Your task to perform on an android device: open app "Paramount+ | Peak Streaming" Image 0: 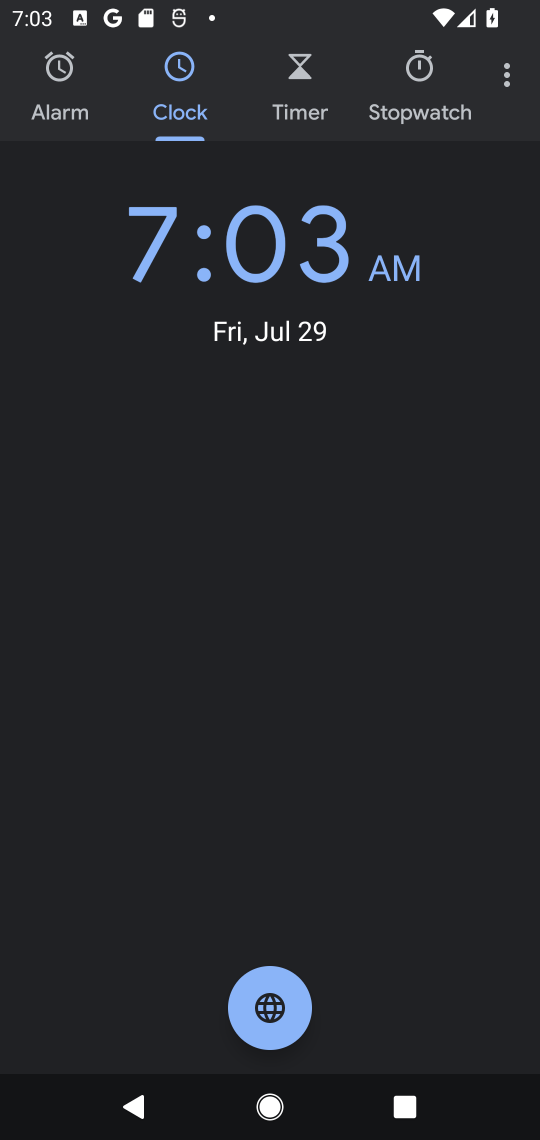
Step 0: press home button
Your task to perform on an android device: open app "Paramount+ | Peak Streaming" Image 1: 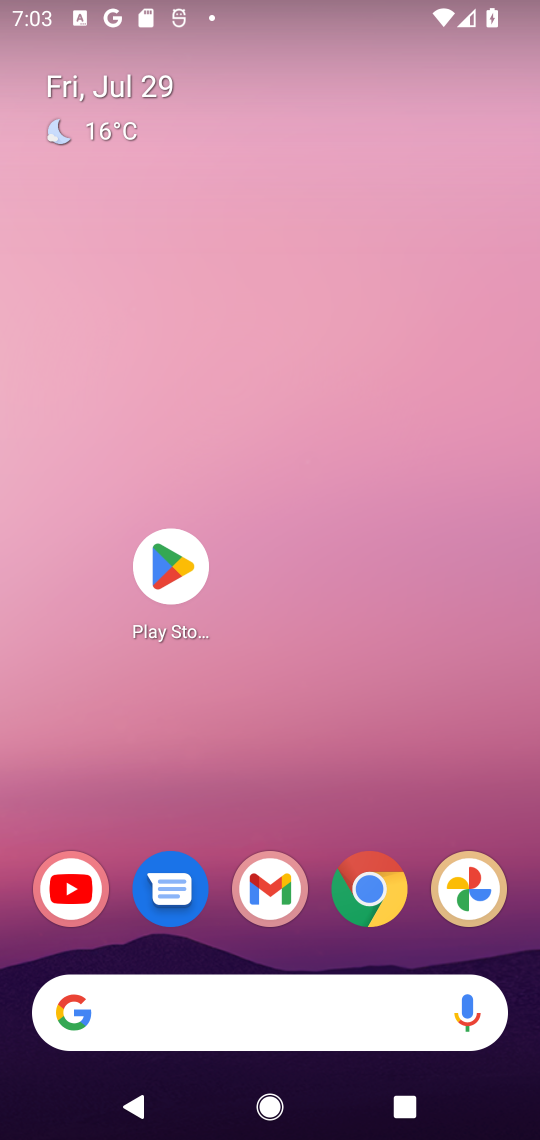
Step 1: click (178, 557)
Your task to perform on an android device: open app "Paramount+ | Peak Streaming" Image 2: 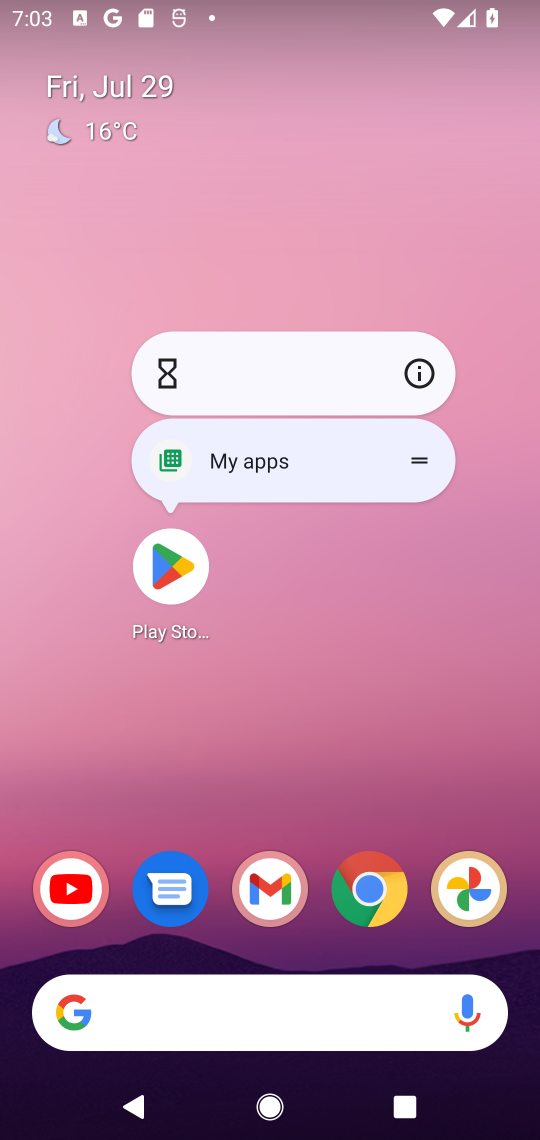
Step 2: click (166, 562)
Your task to perform on an android device: open app "Paramount+ | Peak Streaming" Image 3: 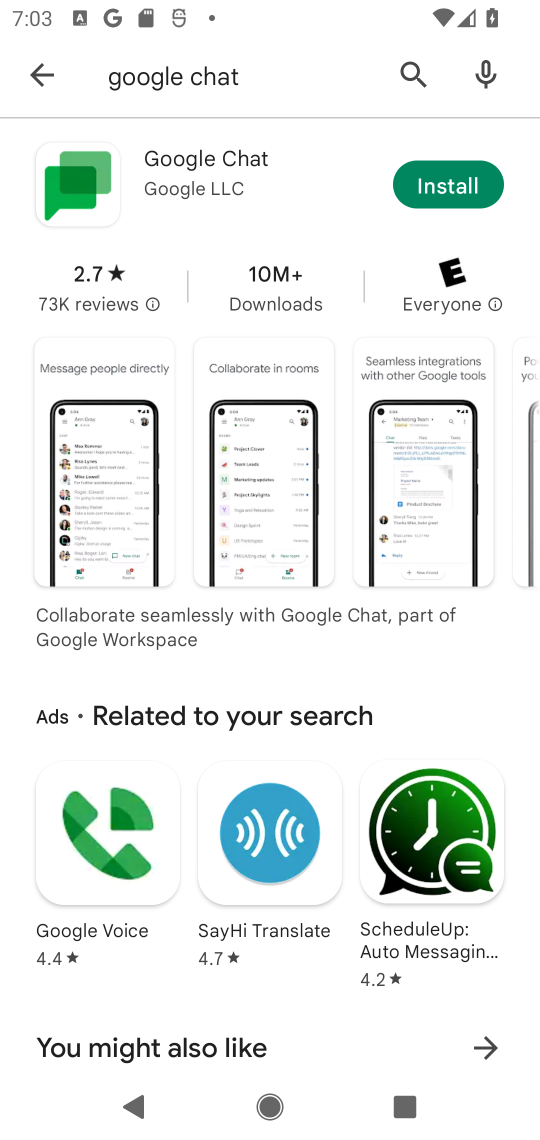
Step 3: click (414, 56)
Your task to perform on an android device: open app "Paramount+ | Peak Streaming" Image 4: 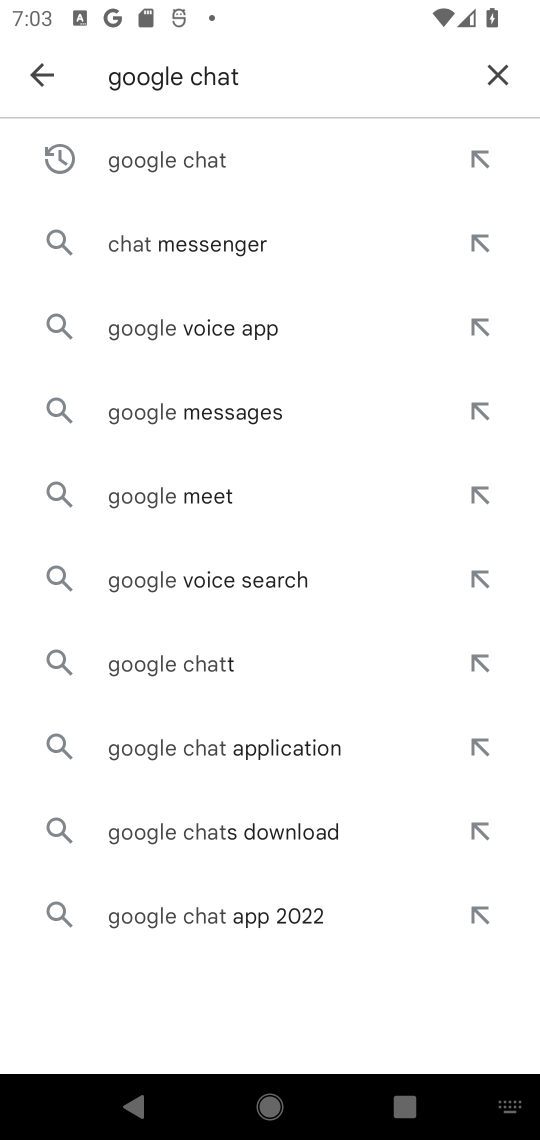
Step 4: click (494, 75)
Your task to perform on an android device: open app "Paramount+ | Peak Streaming" Image 5: 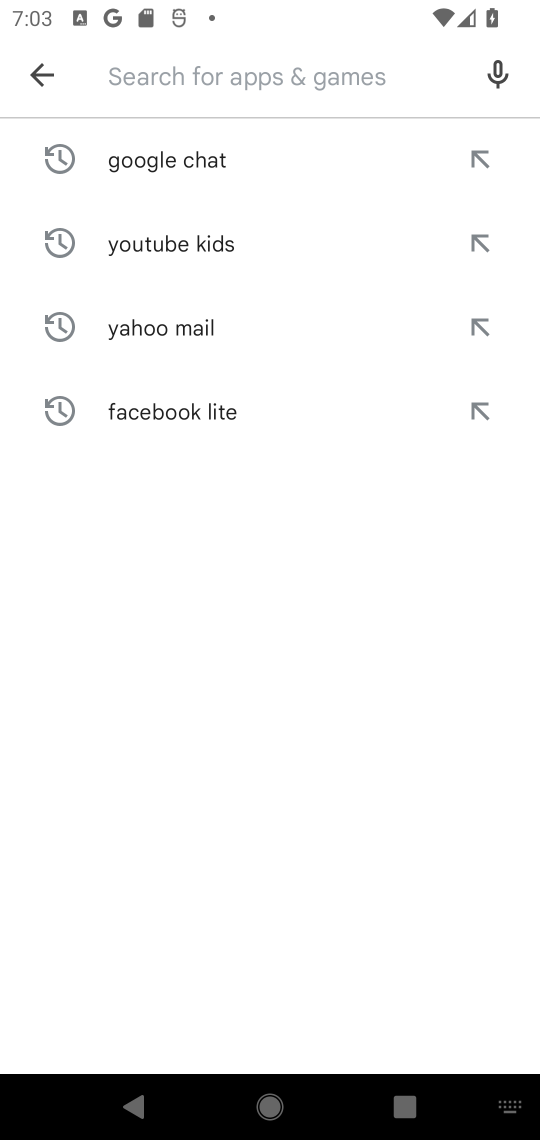
Step 5: type "Paramount+ | Peak Streaming"
Your task to perform on an android device: open app "Paramount+ | Peak Streaming" Image 6: 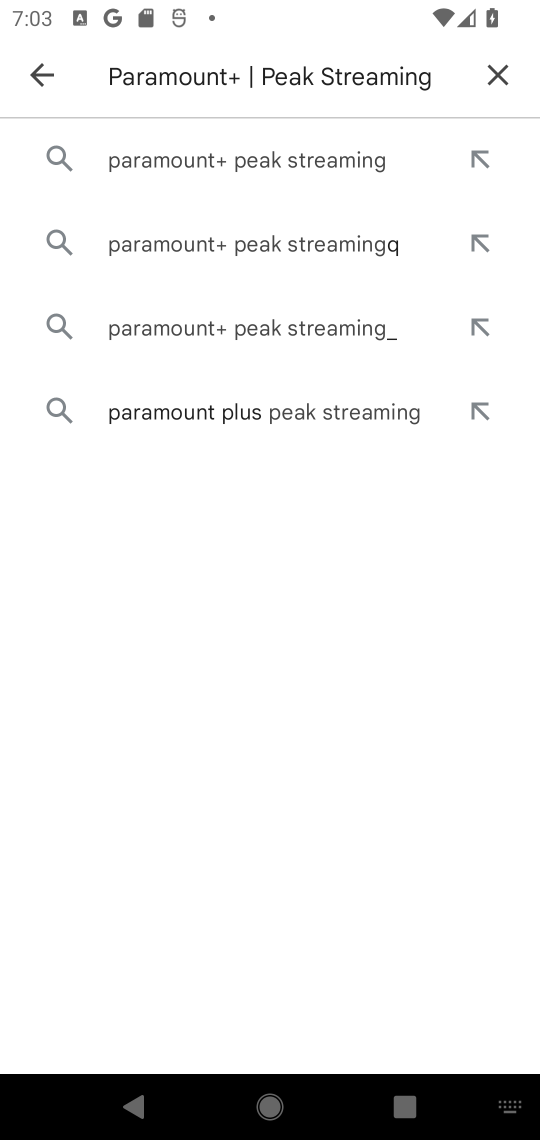
Step 6: click (308, 159)
Your task to perform on an android device: open app "Paramount+ | Peak Streaming" Image 7: 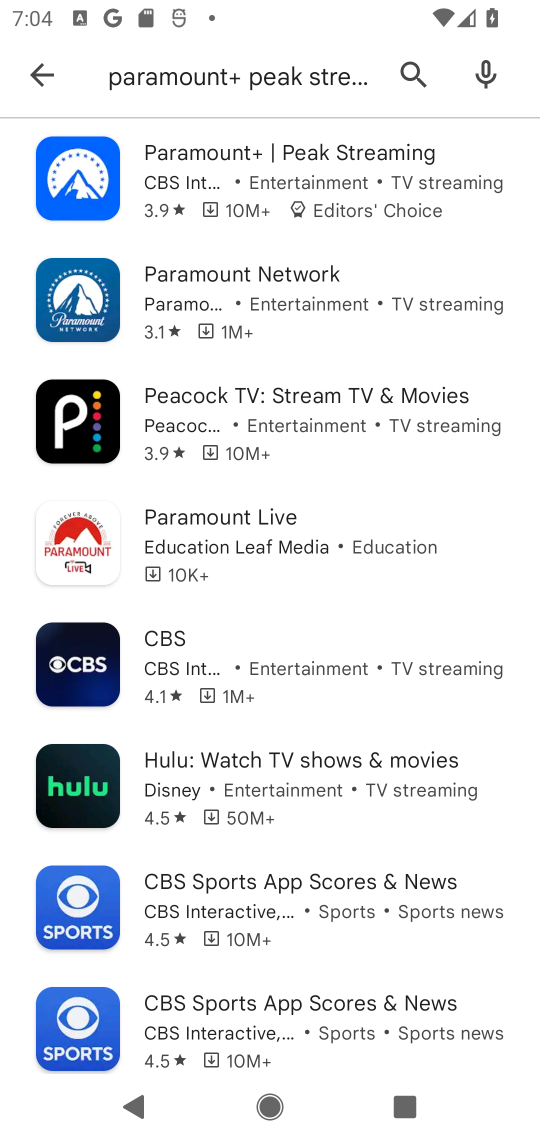
Step 7: click (324, 170)
Your task to perform on an android device: open app "Paramount+ | Peak Streaming" Image 8: 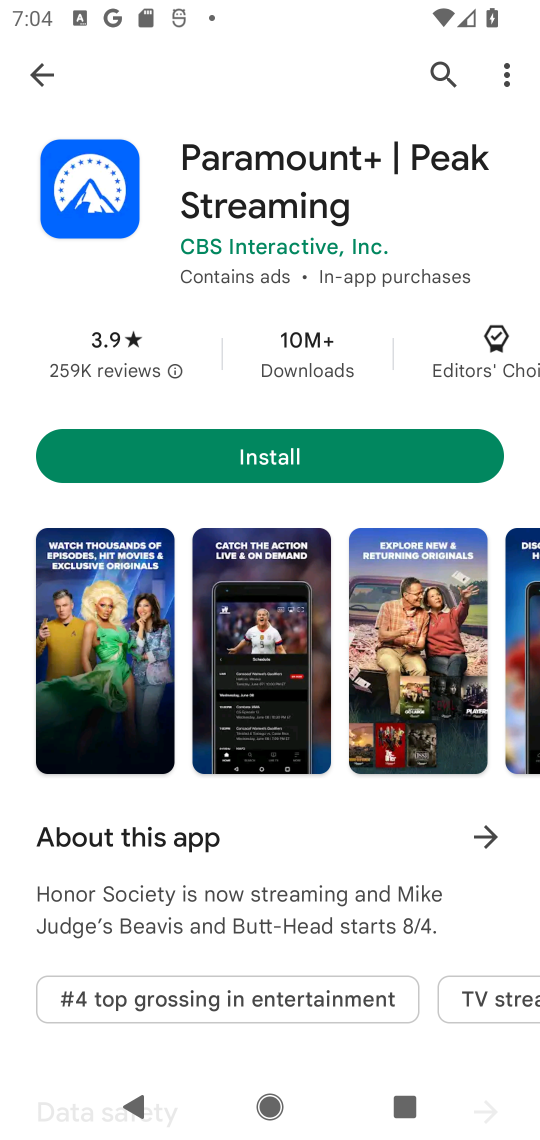
Step 8: task complete